Your task to perform on an android device: add a label to a message in the gmail app Image 0: 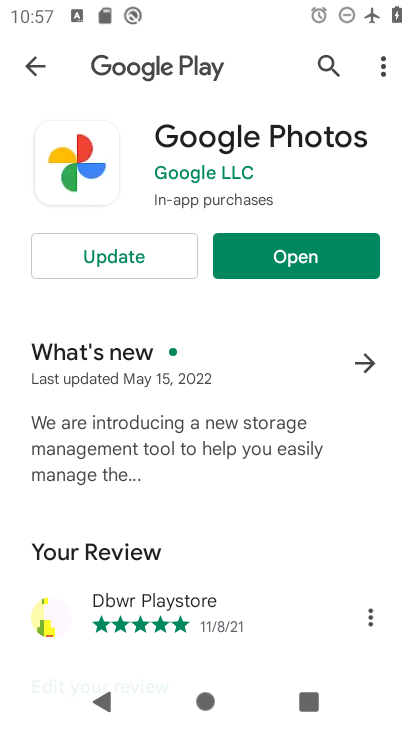
Step 0: press home button
Your task to perform on an android device: add a label to a message in the gmail app Image 1: 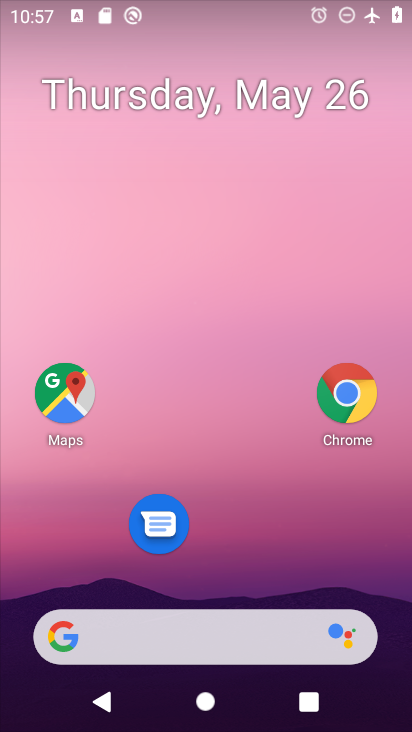
Step 1: drag from (243, 521) to (260, 3)
Your task to perform on an android device: add a label to a message in the gmail app Image 2: 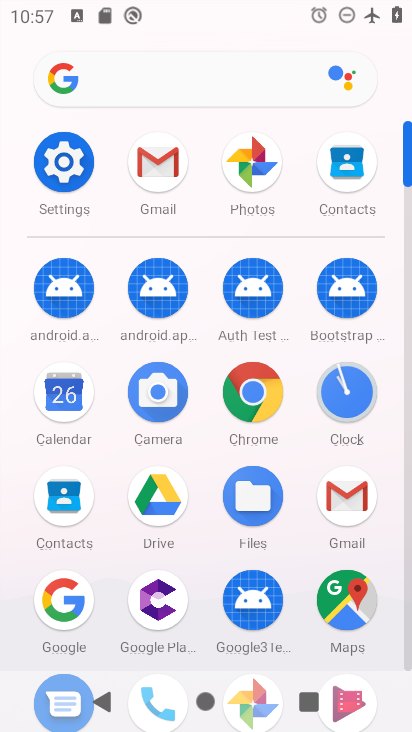
Step 2: click (162, 158)
Your task to perform on an android device: add a label to a message in the gmail app Image 3: 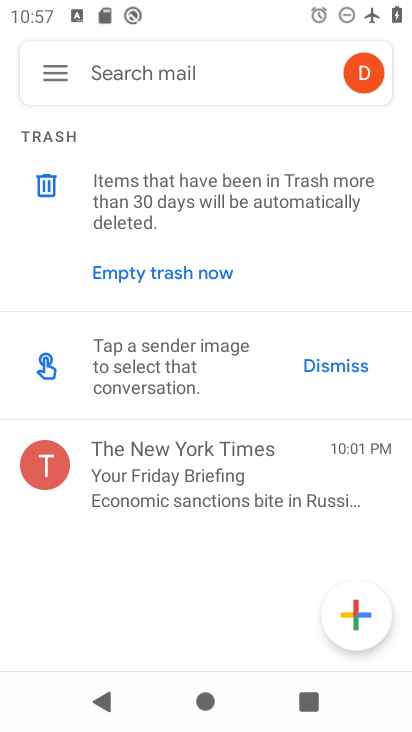
Step 3: click (54, 73)
Your task to perform on an android device: add a label to a message in the gmail app Image 4: 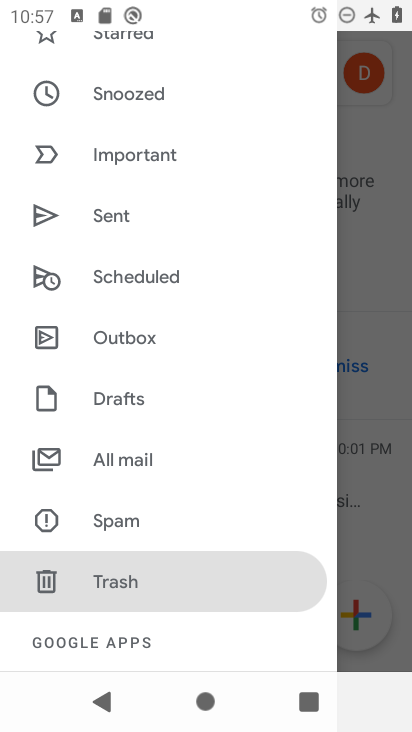
Step 4: click (124, 445)
Your task to perform on an android device: add a label to a message in the gmail app Image 5: 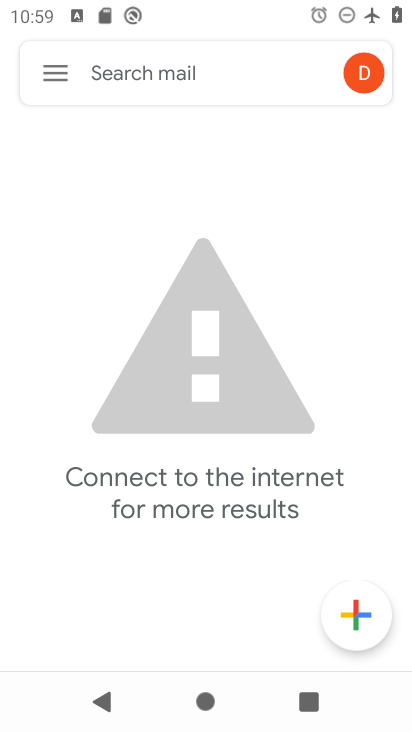
Step 5: task complete